Your task to perform on an android device: create a new album in the google photos Image 0: 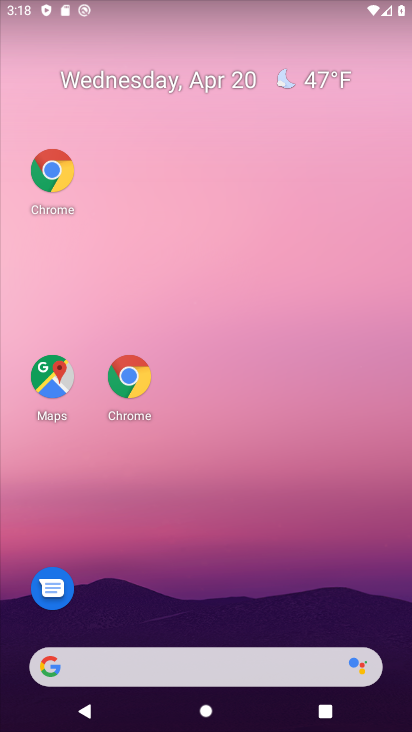
Step 0: drag from (247, 531) to (231, 8)
Your task to perform on an android device: create a new album in the google photos Image 1: 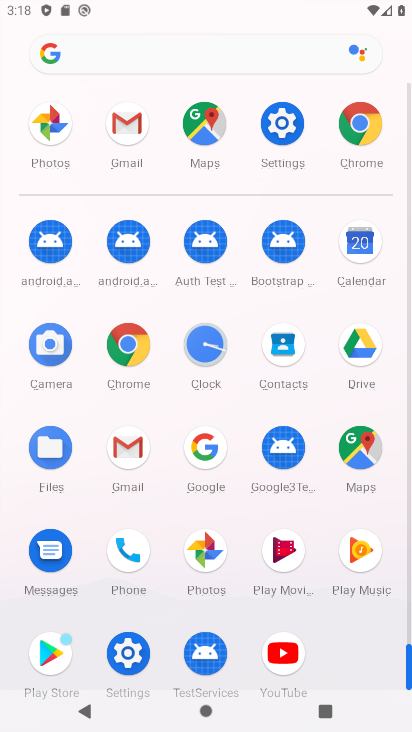
Step 1: click (215, 566)
Your task to perform on an android device: create a new album in the google photos Image 2: 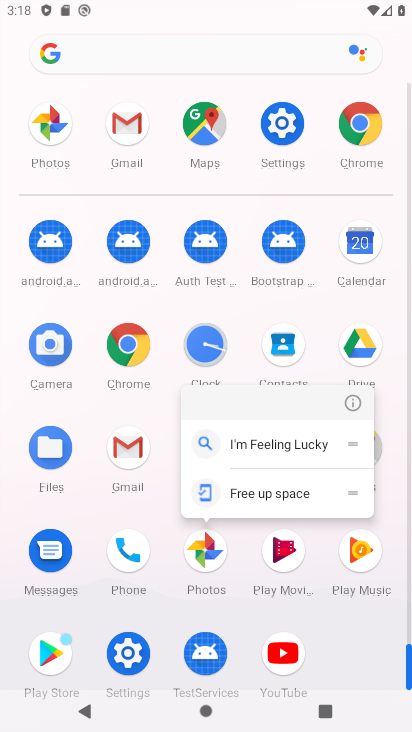
Step 2: click (217, 542)
Your task to perform on an android device: create a new album in the google photos Image 3: 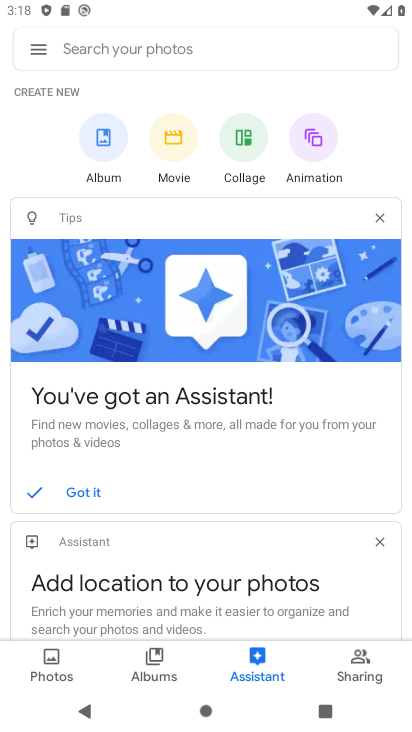
Step 3: click (104, 137)
Your task to perform on an android device: create a new album in the google photos Image 4: 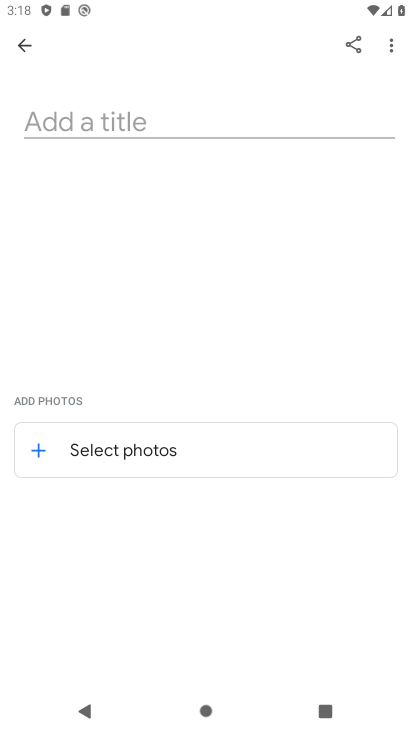
Step 4: click (136, 116)
Your task to perform on an android device: create a new album in the google photos Image 5: 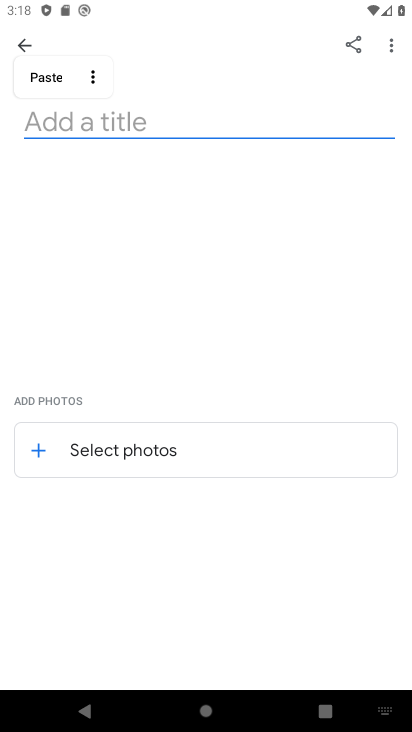
Step 5: type "gjkjk"
Your task to perform on an android device: create a new album in the google photos Image 6: 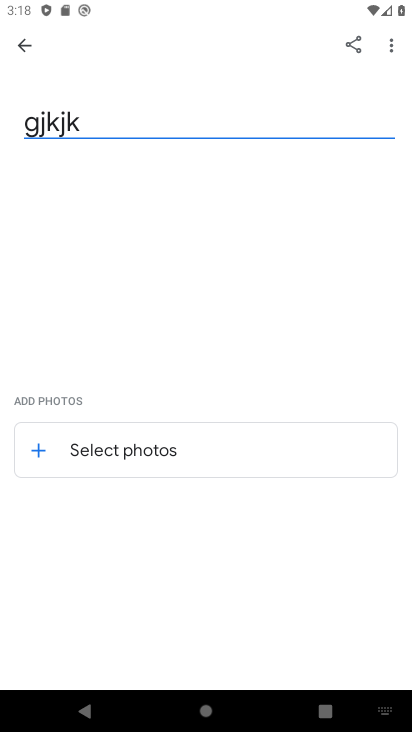
Step 6: click (36, 454)
Your task to perform on an android device: create a new album in the google photos Image 7: 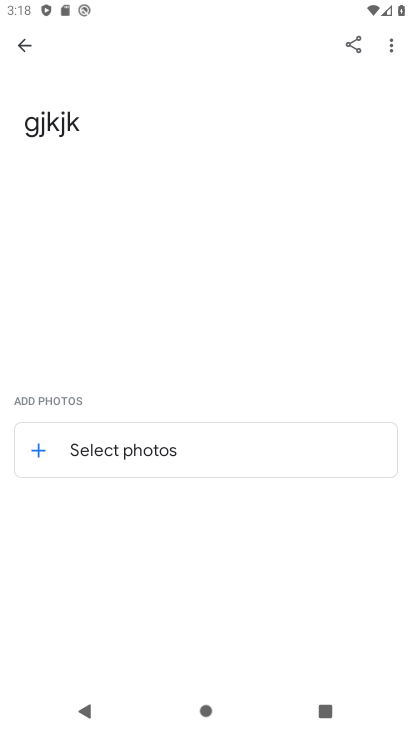
Step 7: click (45, 455)
Your task to perform on an android device: create a new album in the google photos Image 8: 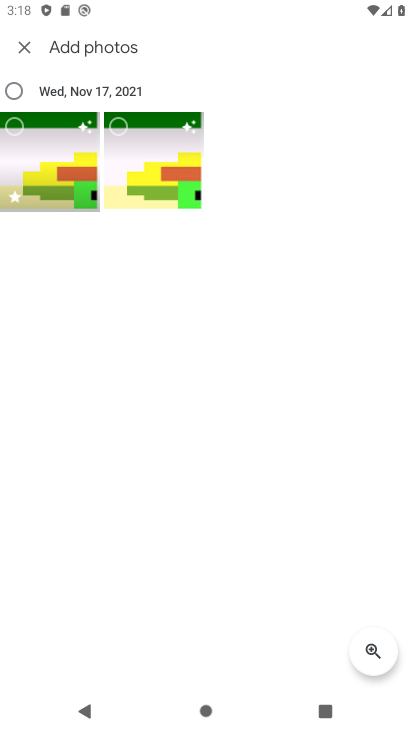
Step 8: click (130, 153)
Your task to perform on an android device: create a new album in the google photos Image 9: 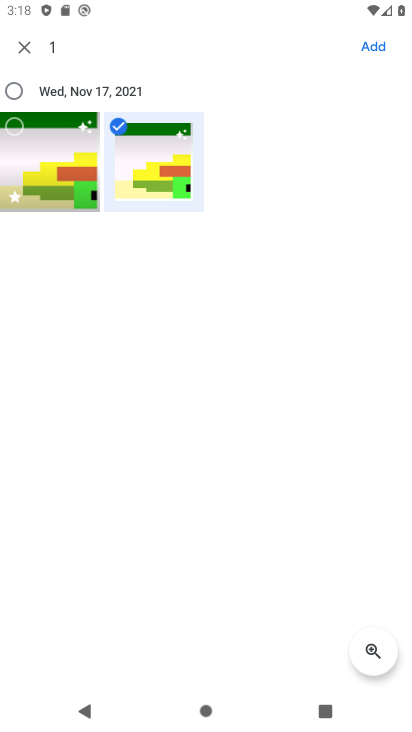
Step 9: click (382, 43)
Your task to perform on an android device: create a new album in the google photos Image 10: 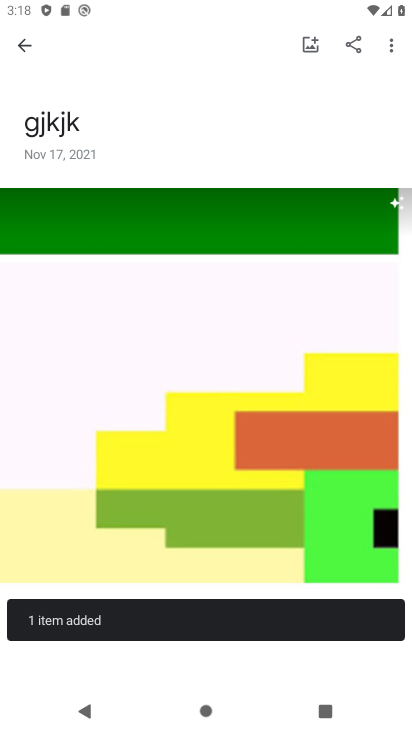
Step 10: task complete